Your task to perform on an android device: See recent photos Image 0: 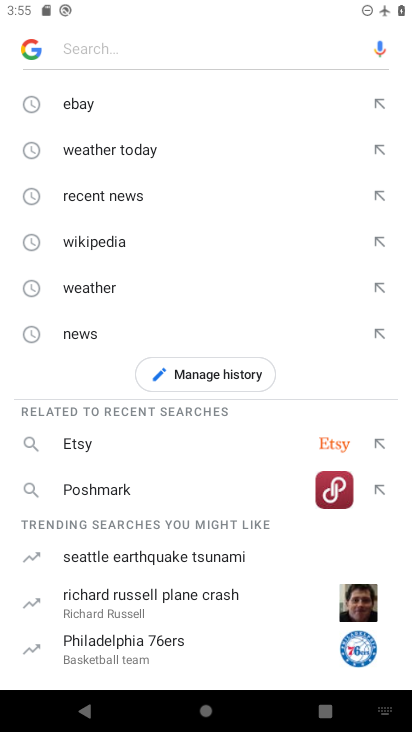
Step 0: press home button
Your task to perform on an android device: See recent photos Image 1: 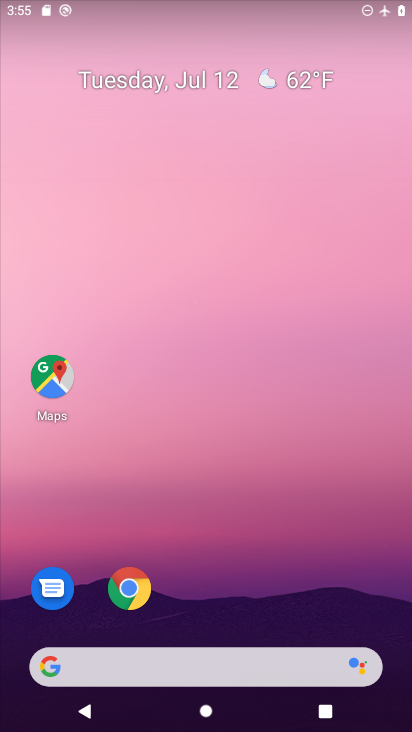
Step 1: drag from (205, 564) to (214, 22)
Your task to perform on an android device: See recent photos Image 2: 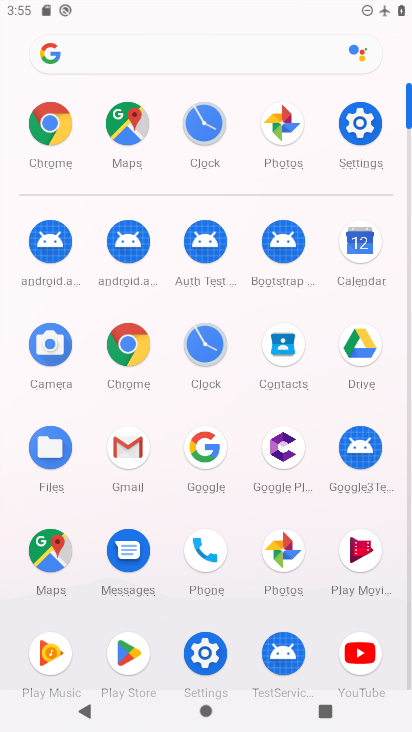
Step 2: click (277, 562)
Your task to perform on an android device: See recent photos Image 3: 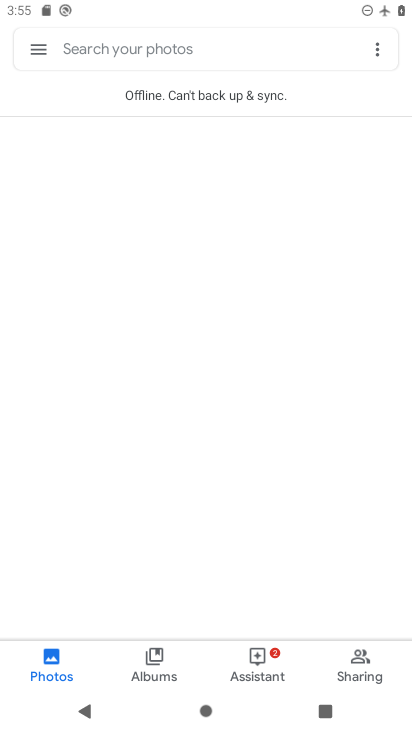
Step 3: task complete